Your task to perform on an android device: set default search engine in the chrome app Image 0: 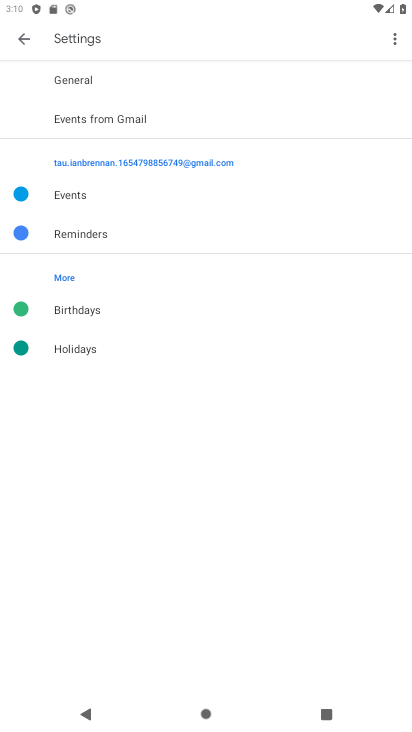
Step 0: task complete